Your task to perform on an android device: Open Chrome and go to settings Image 0: 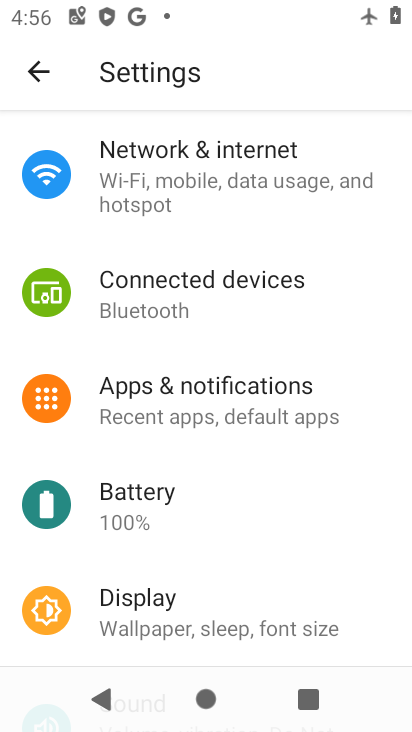
Step 0: press home button
Your task to perform on an android device: Open Chrome and go to settings Image 1: 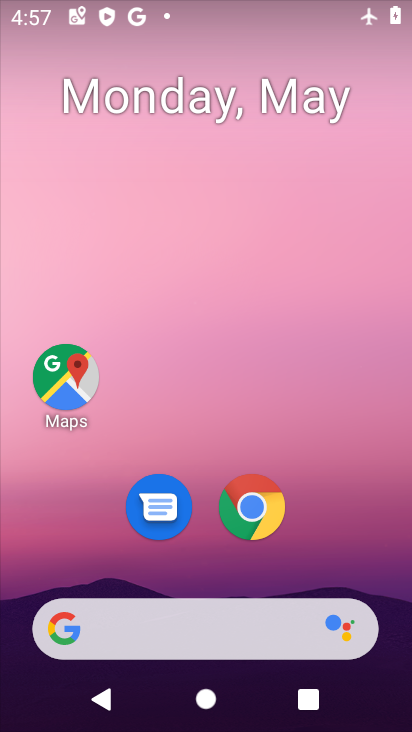
Step 1: click (246, 506)
Your task to perform on an android device: Open Chrome and go to settings Image 2: 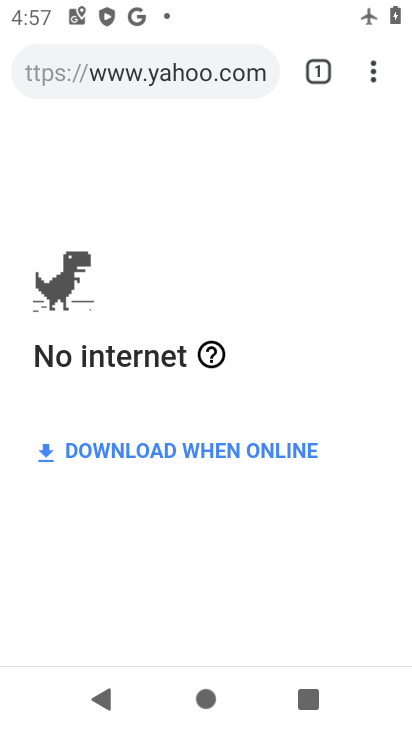
Step 2: task complete